Your task to perform on an android device: Open wifi settings Image 0: 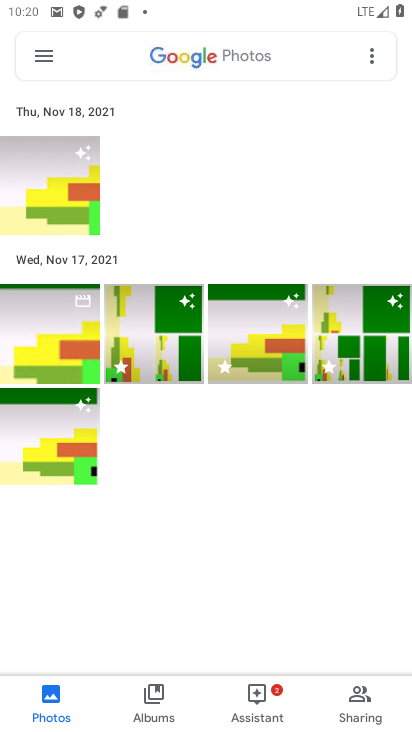
Step 0: press home button
Your task to perform on an android device: Open wifi settings Image 1: 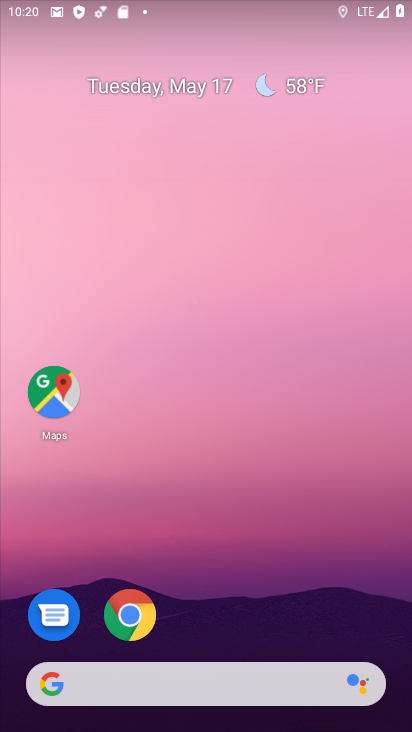
Step 1: drag from (210, 645) to (209, 261)
Your task to perform on an android device: Open wifi settings Image 2: 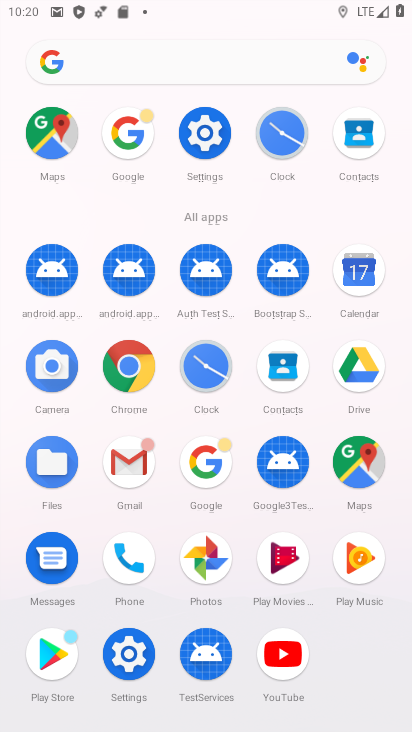
Step 2: click (196, 156)
Your task to perform on an android device: Open wifi settings Image 3: 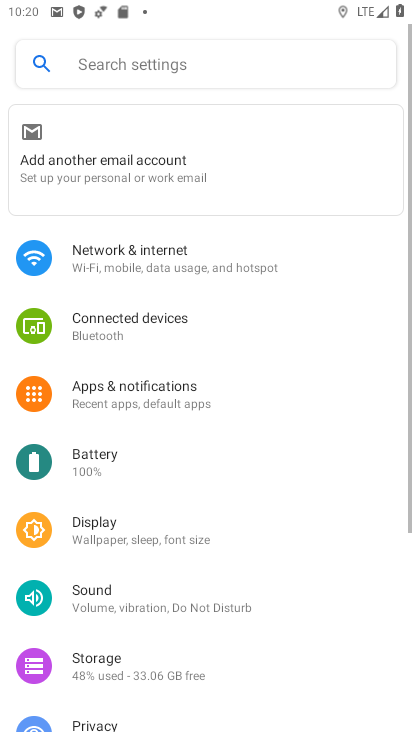
Step 3: click (153, 252)
Your task to perform on an android device: Open wifi settings Image 4: 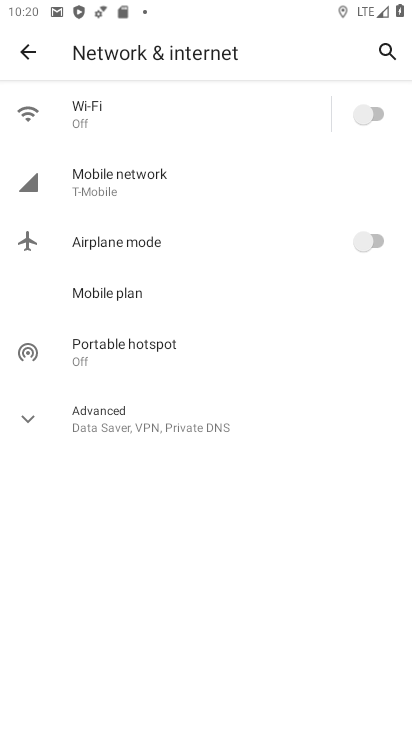
Step 4: click (124, 115)
Your task to perform on an android device: Open wifi settings Image 5: 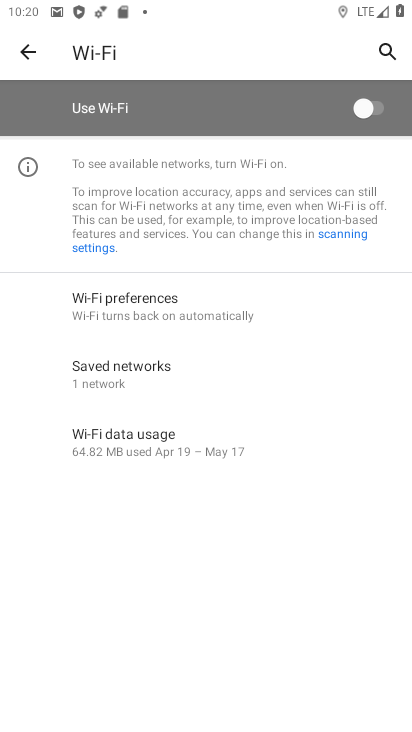
Step 5: task complete